Your task to perform on an android device: see sites visited before in the chrome app Image 0: 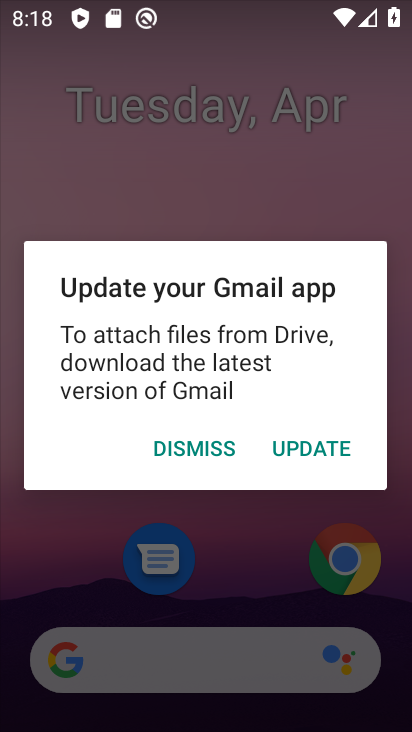
Step 0: press home button
Your task to perform on an android device: see sites visited before in the chrome app Image 1: 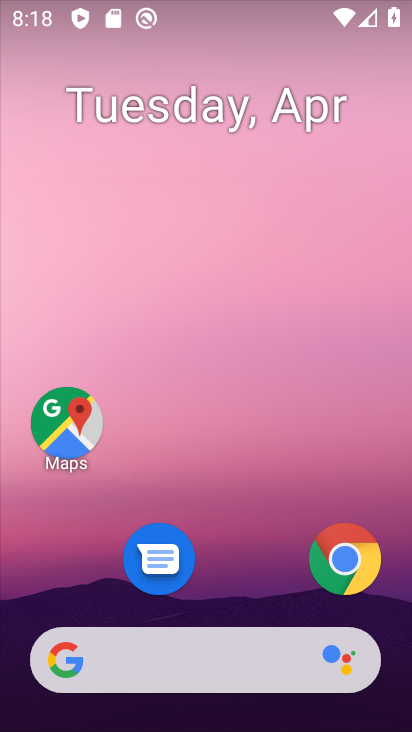
Step 1: click (358, 564)
Your task to perform on an android device: see sites visited before in the chrome app Image 2: 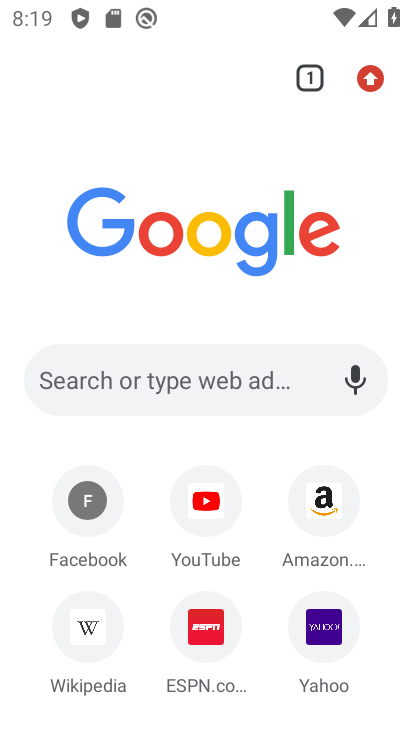
Step 2: click (373, 74)
Your task to perform on an android device: see sites visited before in the chrome app Image 3: 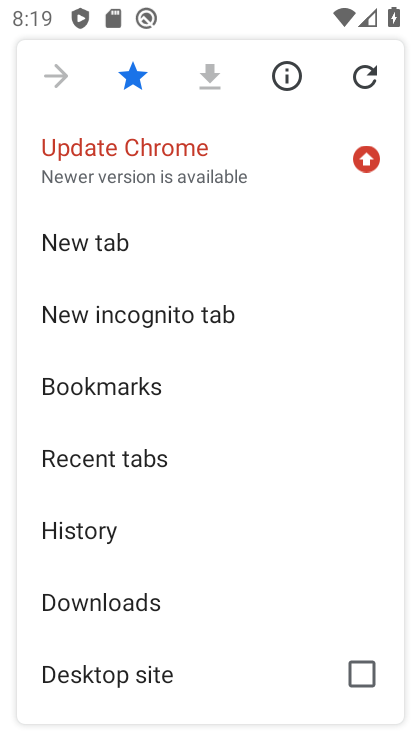
Step 3: drag from (110, 679) to (141, 423)
Your task to perform on an android device: see sites visited before in the chrome app Image 4: 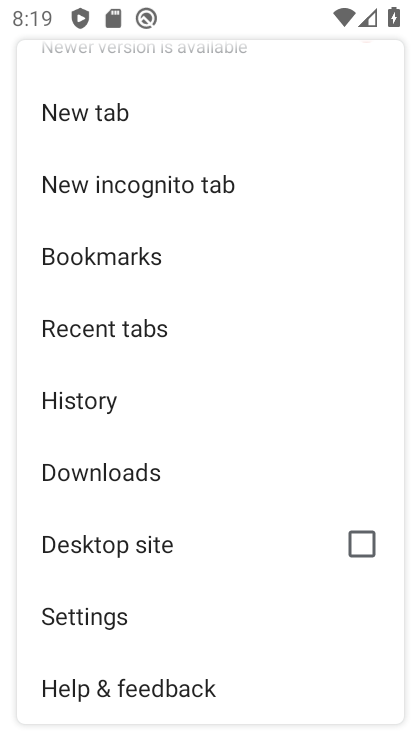
Step 4: click (88, 616)
Your task to perform on an android device: see sites visited before in the chrome app Image 5: 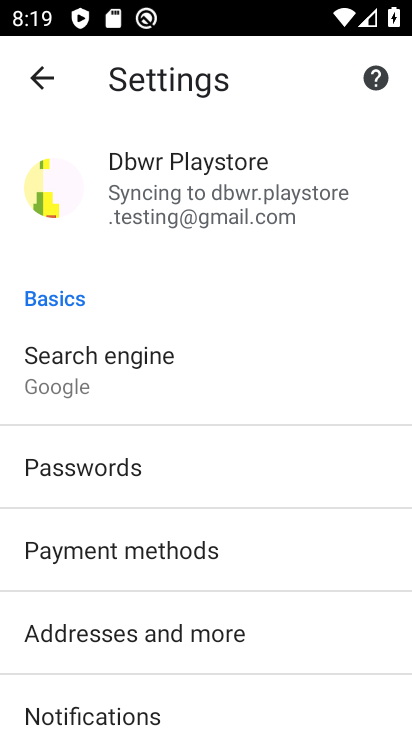
Step 5: drag from (131, 645) to (156, 358)
Your task to perform on an android device: see sites visited before in the chrome app Image 6: 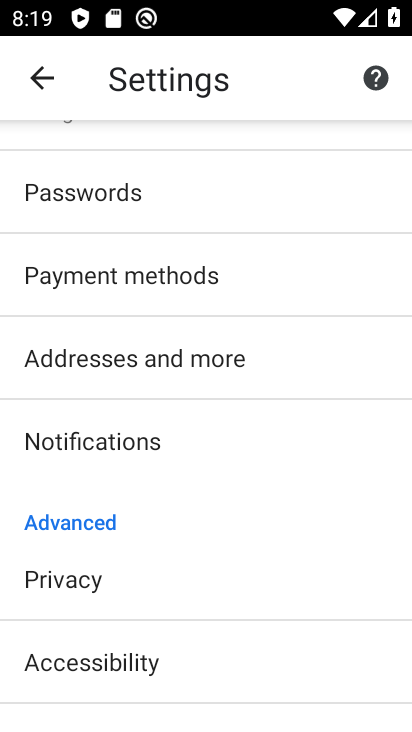
Step 6: drag from (143, 637) to (176, 470)
Your task to perform on an android device: see sites visited before in the chrome app Image 7: 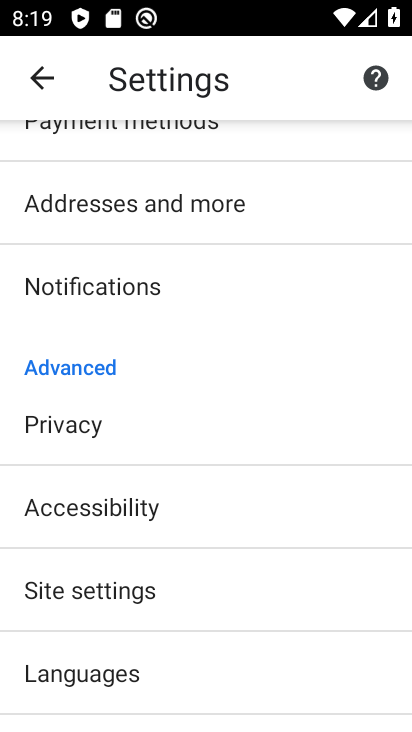
Step 7: click (92, 584)
Your task to perform on an android device: see sites visited before in the chrome app Image 8: 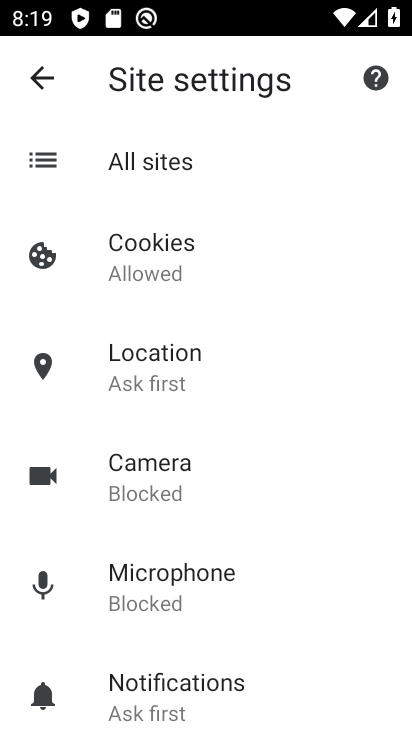
Step 8: task complete